Your task to perform on an android device: Open ESPN.com Image 0: 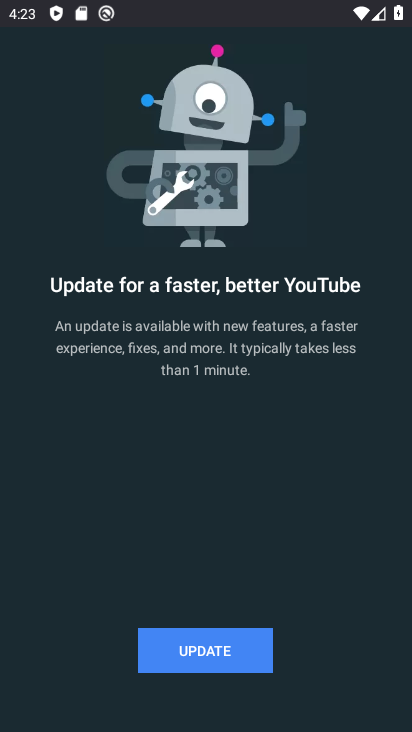
Step 0: press home button
Your task to perform on an android device: Open ESPN.com Image 1: 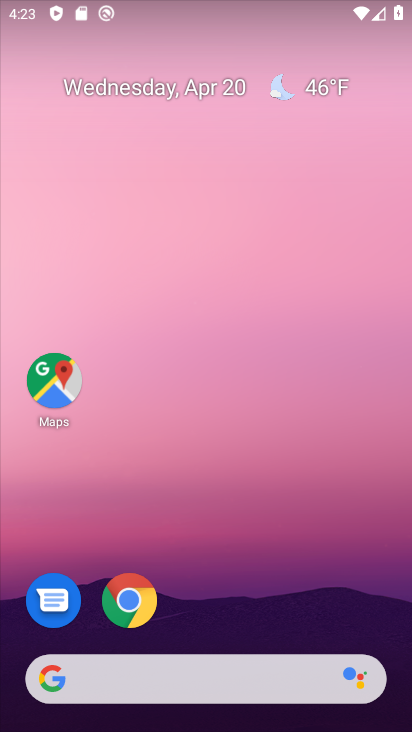
Step 1: click (126, 589)
Your task to perform on an android device: Open ESPN.com Image 2: 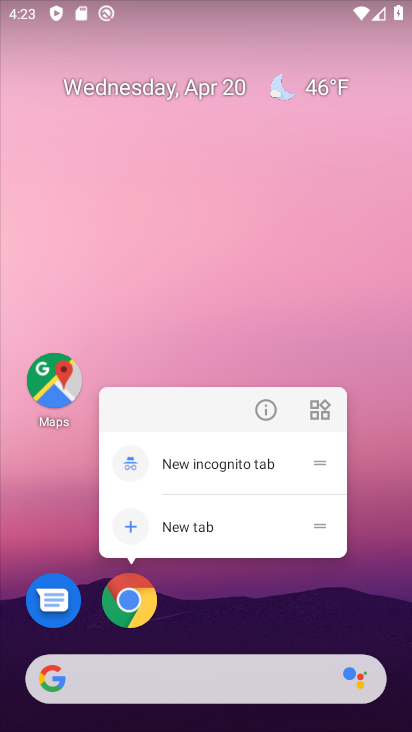
Step 2: click (125, 597)
Your task to perform on an android device: Open ESPN.com Image 3: 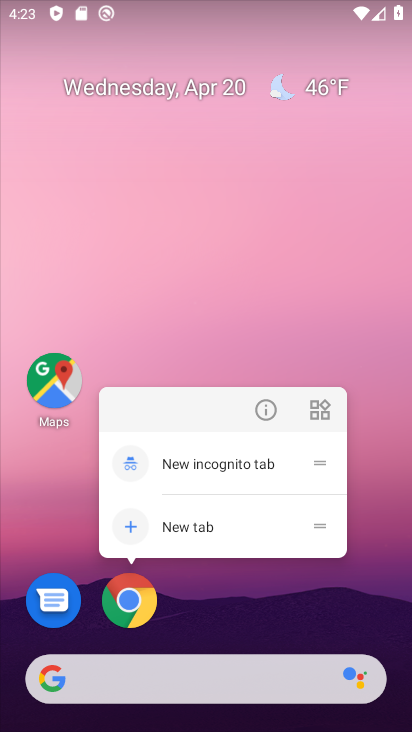
Step 3: click (125, 597)
Your task to perform on an android device: Open ESPN.com Image 4: 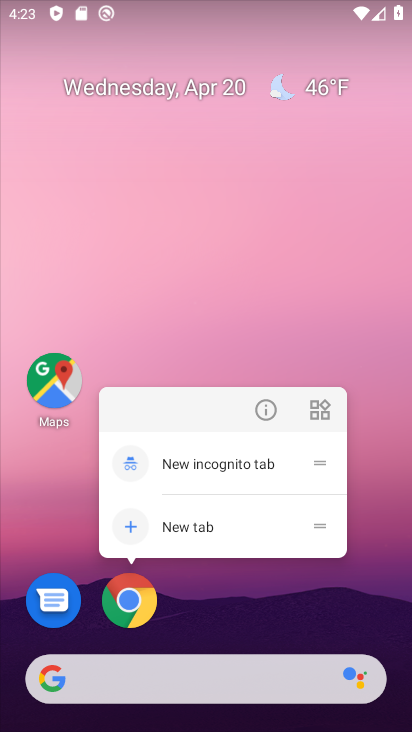
Step 4: click (209, 605)
Your task to perform on an android device: Open ESPN.com Image 5: 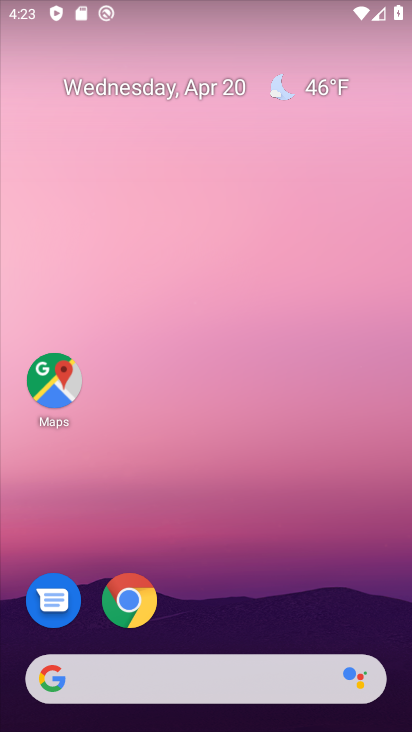
Step 5: drag from (271, 607) to (319, 52)
Your task to perform on an android device: Open ESPN.com Image 6: 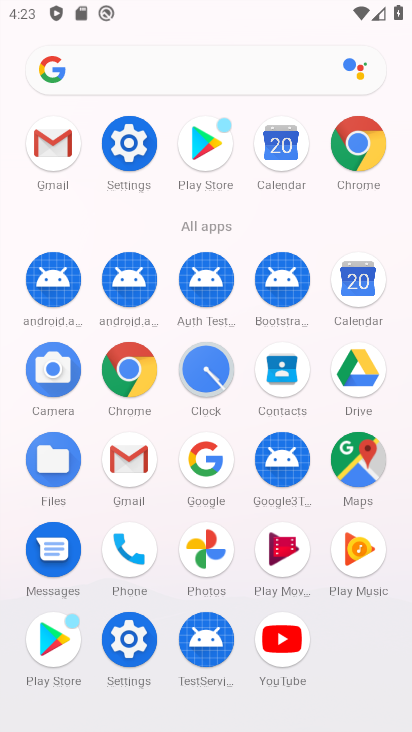
Step 6: click (128, 363)
Your task to perform on an android device: Open ESPN.com Image 7: 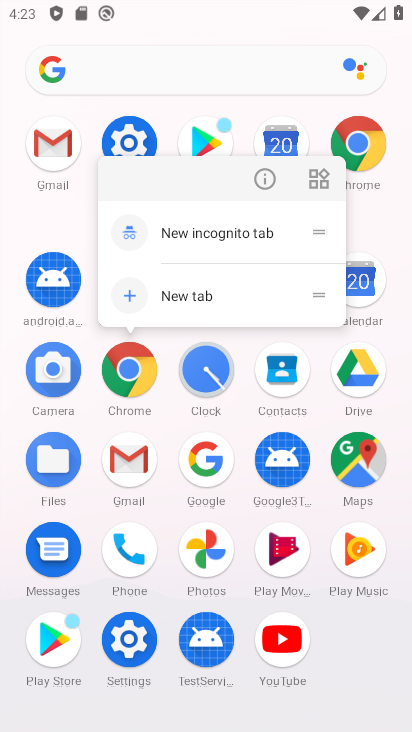
Step 7: click (128, 363)
Your task to perform on an android device: Open ESPN.com Image 8: 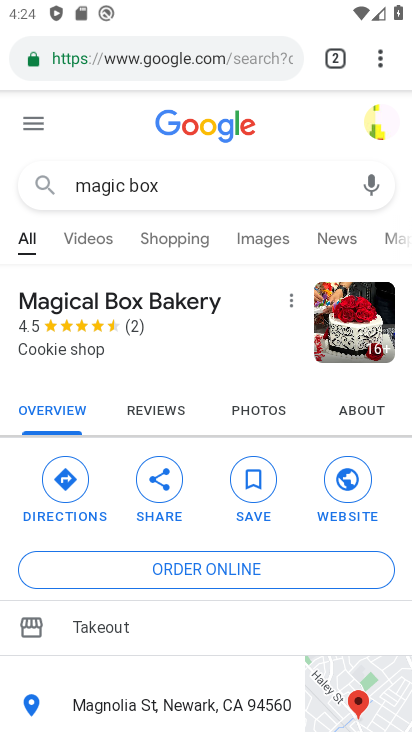
Step 8: click (333, 59)
Your task to perform on an android device: Open ESPN.com Image 9: 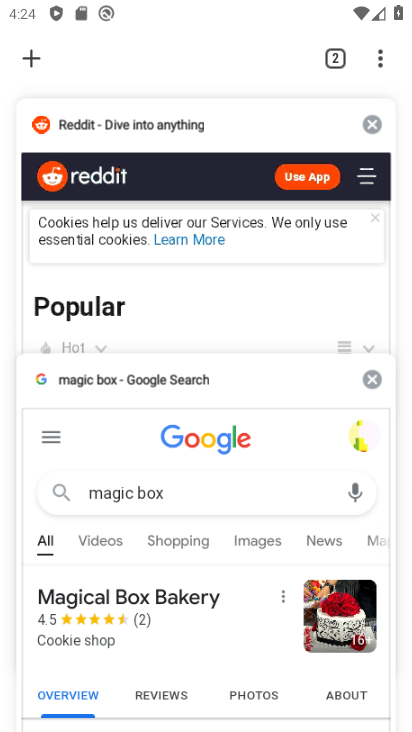
Step 9: click (369, 124)
Your task to perform on an android device: Open ESPN.com Image 10: 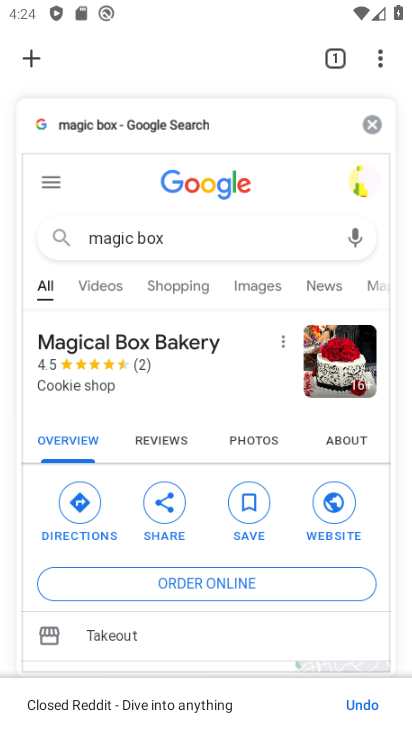
Step 10: click (369, 124)
Your task to perform on an android device: Open ESPN.com Image 11: 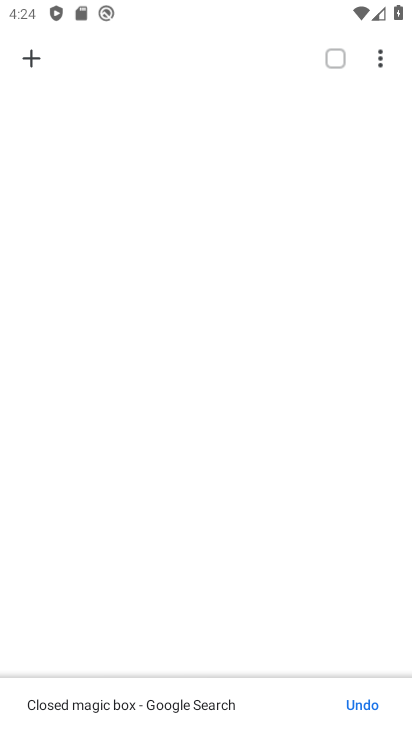
Step 11: click (40, 59)
Your task to perform on an android device: Open ESPN.com Image 12: 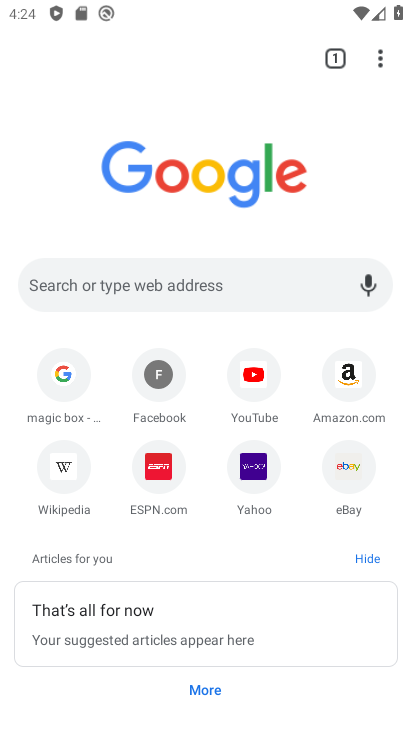
Step 12: click (161, 468)
Your task to perform on an android device: Open ESPN.com Image 13: 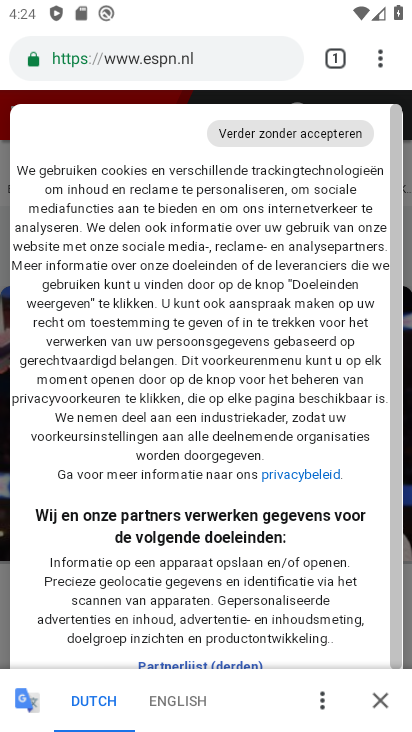
Step 13: drag from (209, 605) to (246, 200)
Your task to perform on an android device: Open ESPN.com Image 14: 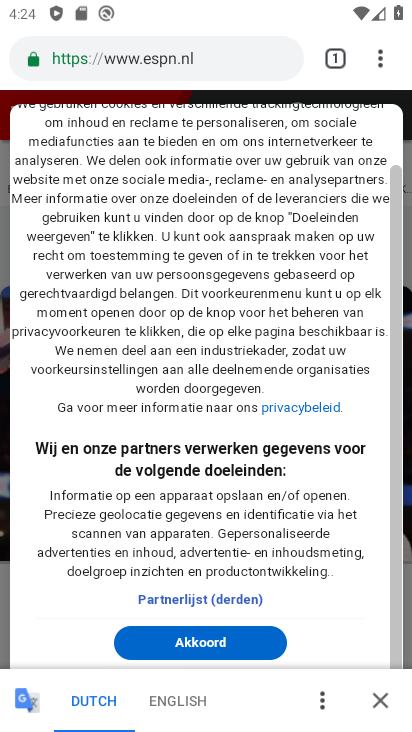
Step 14: drag from (222, 562) to (224, 240)
Your task to perform on an android device: Open ESPN.com Image 15: 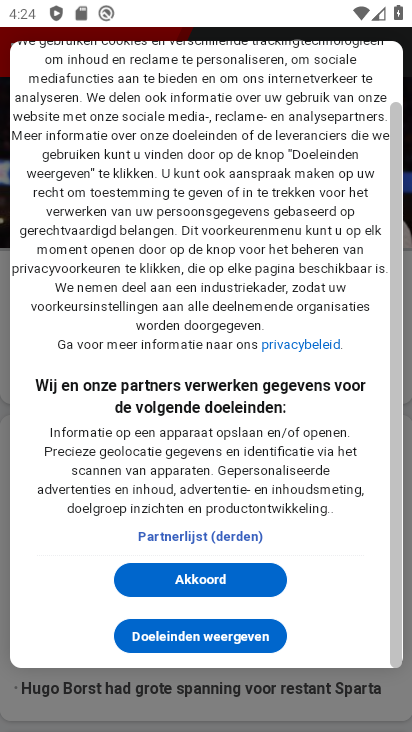
Step 15: click (205, 574)
Your task to perform on an android device: Open ESPN.com Image 16: 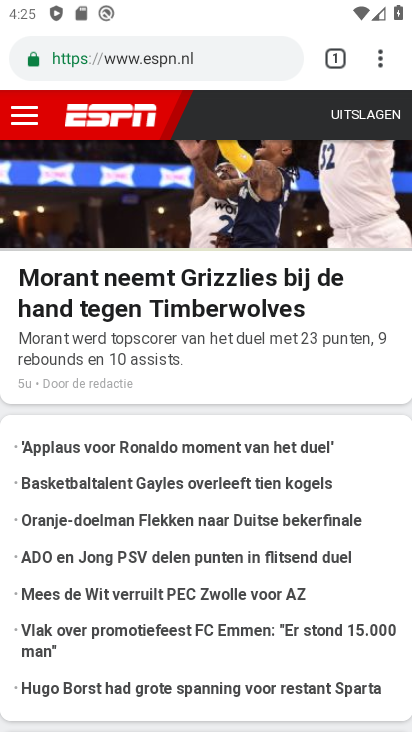
Step 16: task complete